Your task to perform on an android device: find photos in the google photos app Image 0: 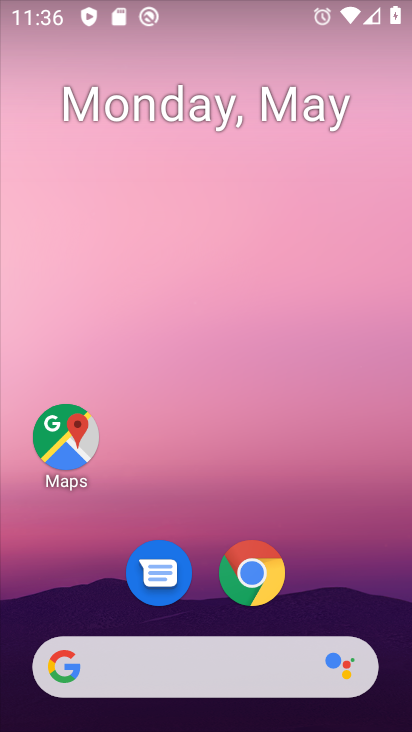
Step 0: drag from (156, 582) to (216, 58)
Your task to perform on an android device: find photos in the google photos app Image 1: 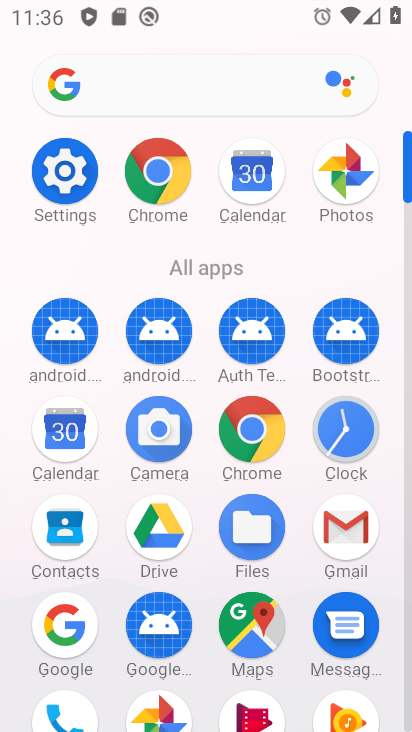
Step 1: click (328, 180)
Your task to perform on an android device: find photos in the google photos app Image 2: 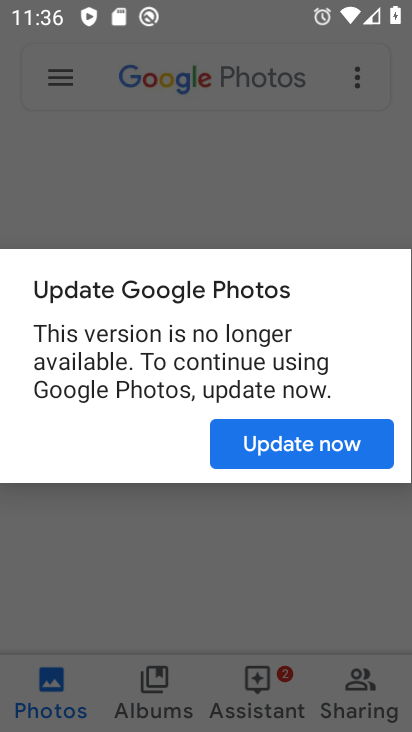
Step 2: click (282, 453)
Your task to perform on an android device: find photos in the google photos app Image 3: 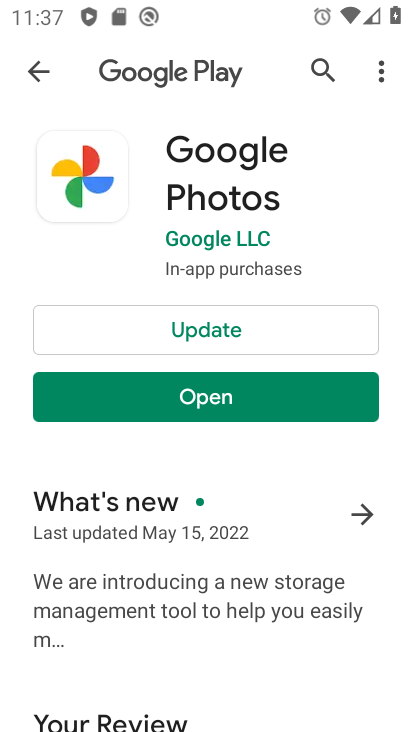
Step 3: click (273, 325)
Your task to perform on an android device: find photos in the google photos app Image 4: 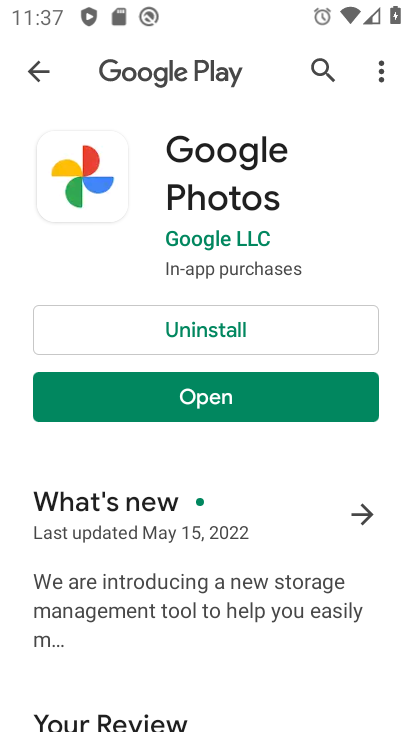
Step 4: click (181, 409)
Your task to perform on an android device: find photos in the google photos app Image 5: 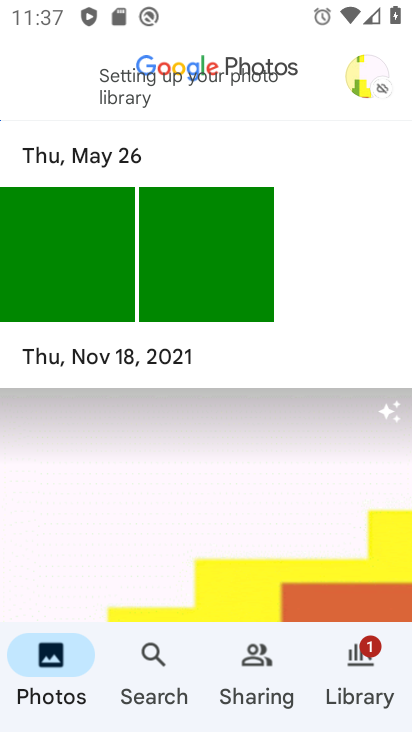
Step 5: click (253, 243)
Your task to perform on an android device: find photos in the google photos app Image 6: 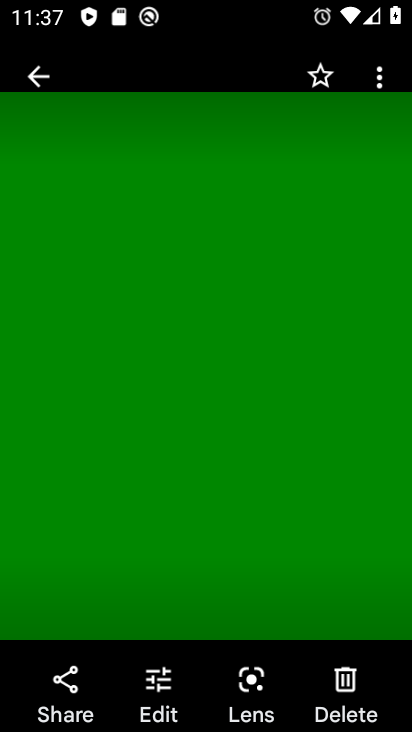
Step 6: task complete